Your task to perform on an android device: turn off wifi Image 0: 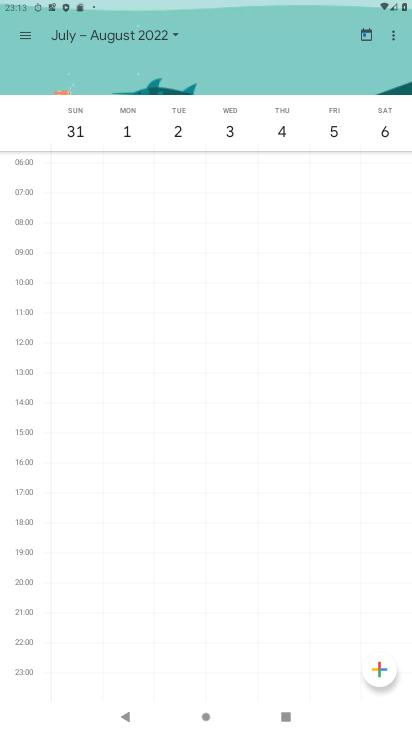
Step 0: press home button
Your task to perform on an android device: turn off wifi Image 1: 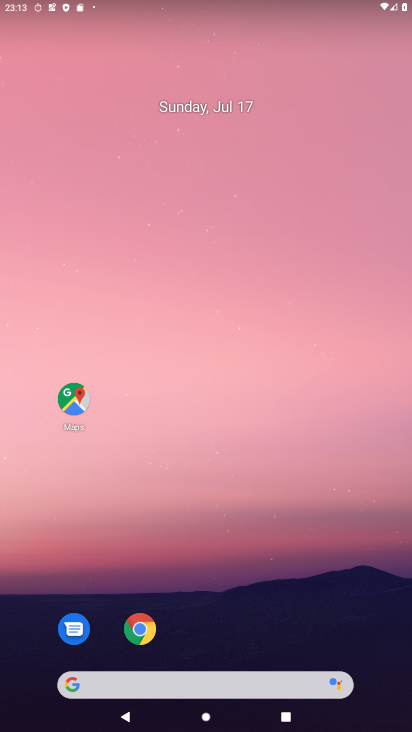
Step 1: drag from (249, 714) to (249, 171)
Your task to perform on an android device: turn off wifi Image 2: 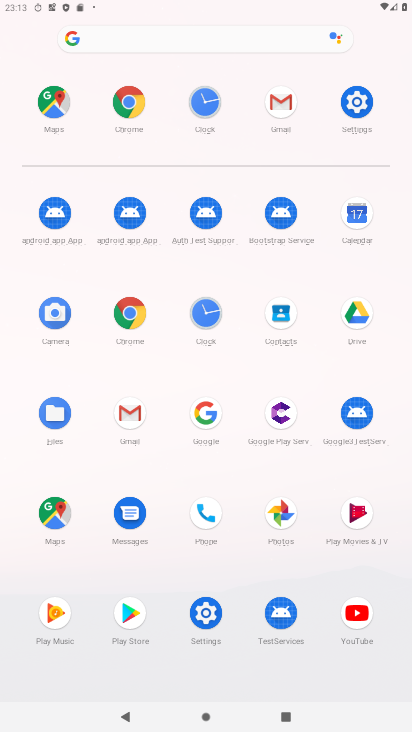
Step 2: click (354, 104)
Your task to perform on an android device: turn off wifi Image 3: 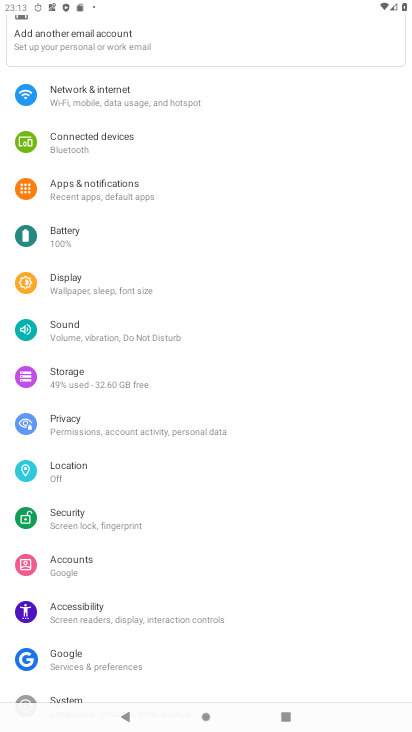
Step 3: click (96, 101)
Your task to perform on an android device: turn off wifi Image 4: 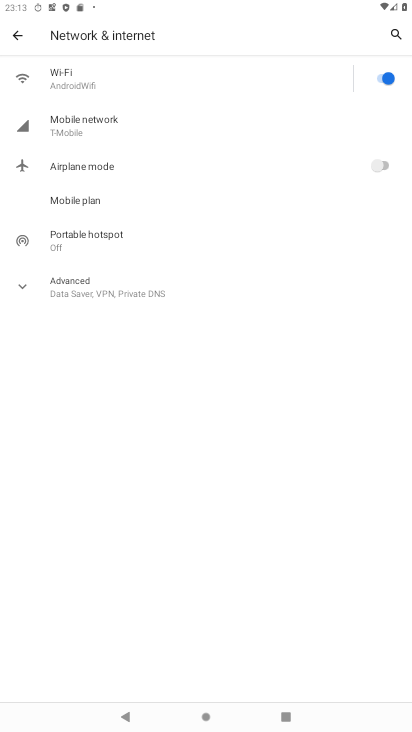
Step 4: click (380, 73)
Your task to perform on an android device: turn off wifi Image 5: 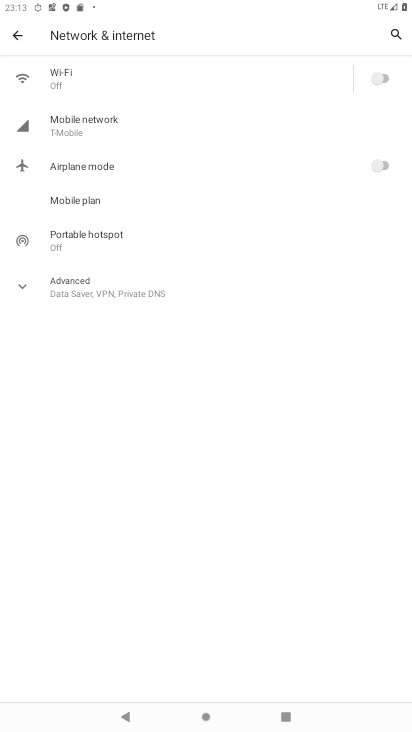
Step 5: task complete